Your task to perform on an android device: Do I have any events tomorrow? Image 0: 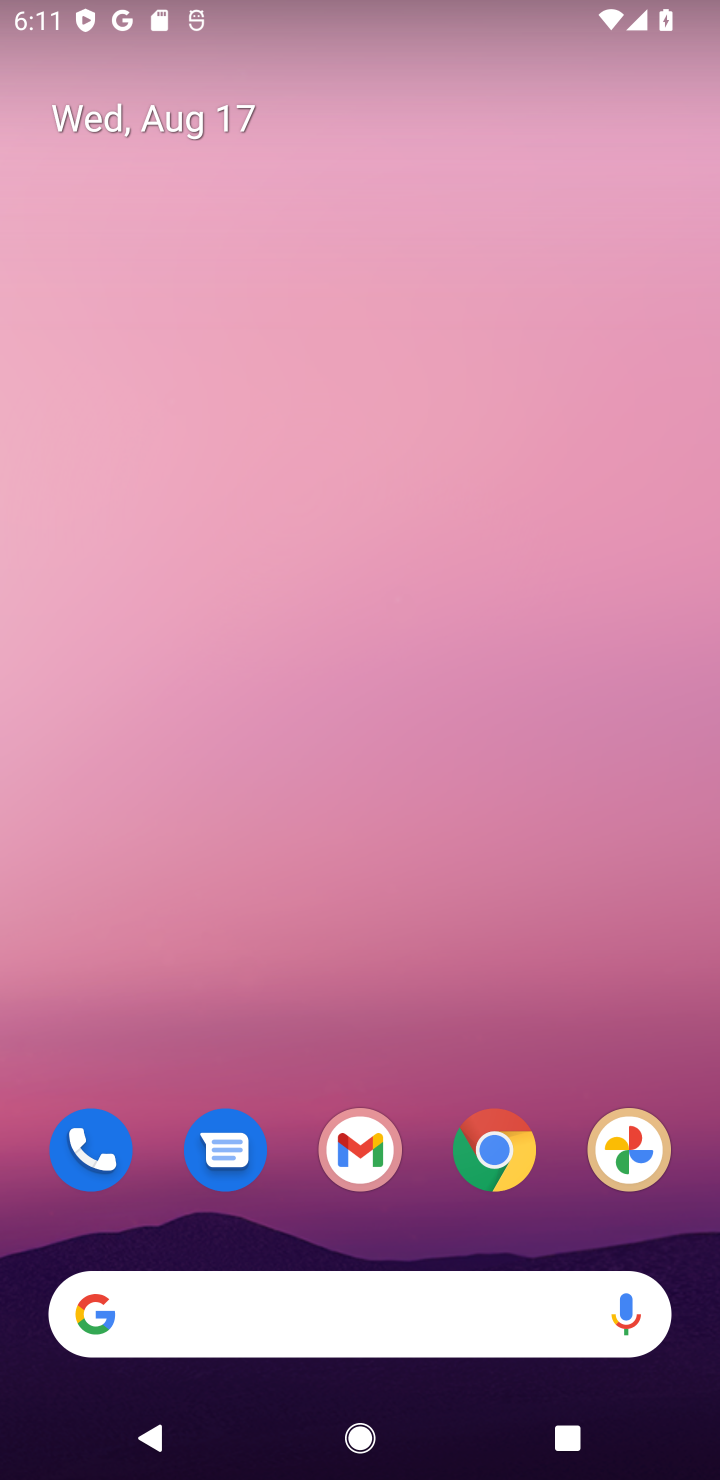
Step 0: drag from (313, 1169) to (397, 411)
Your task to perform on an android device: Do I have any events tomorrow? Image 1: 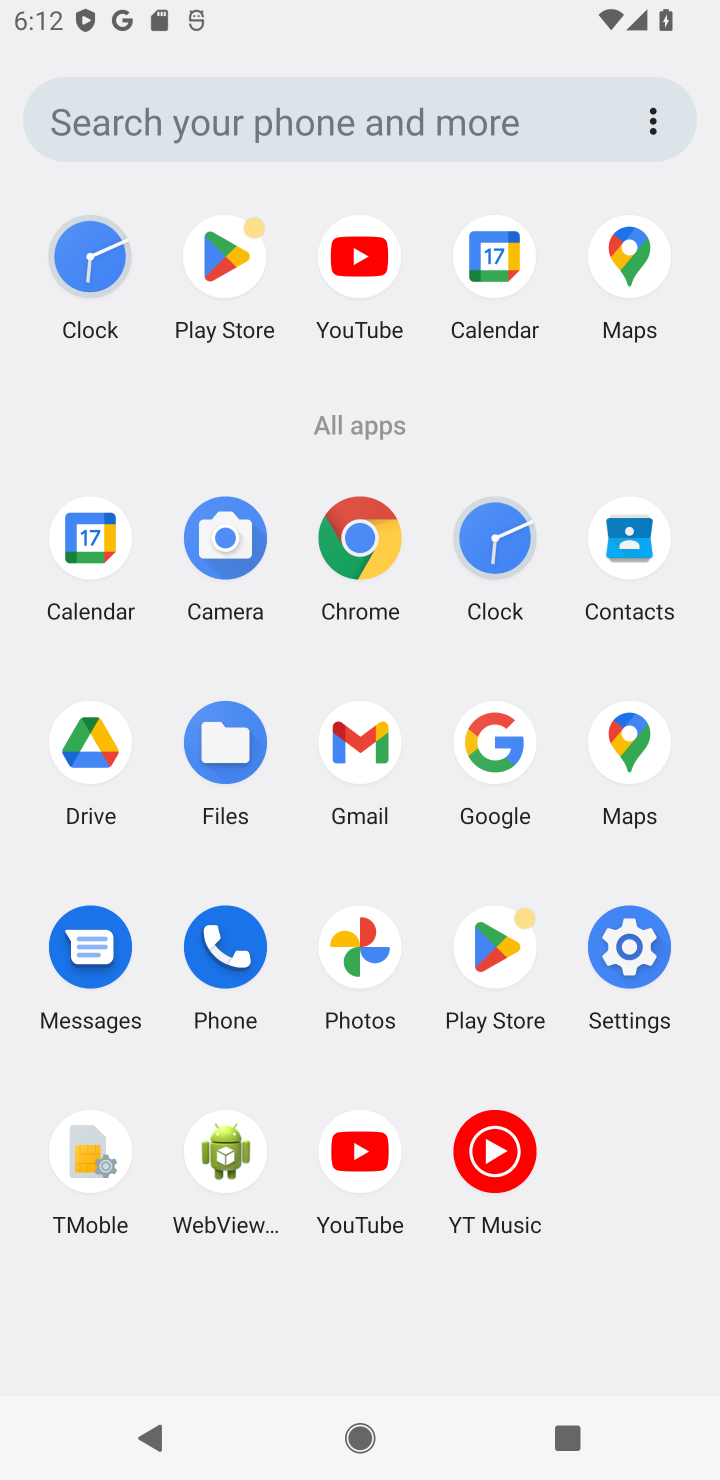
Step 1: click (85, 530)
Your task to perform on an android device: Do I have any events tomorrow? Image 2: 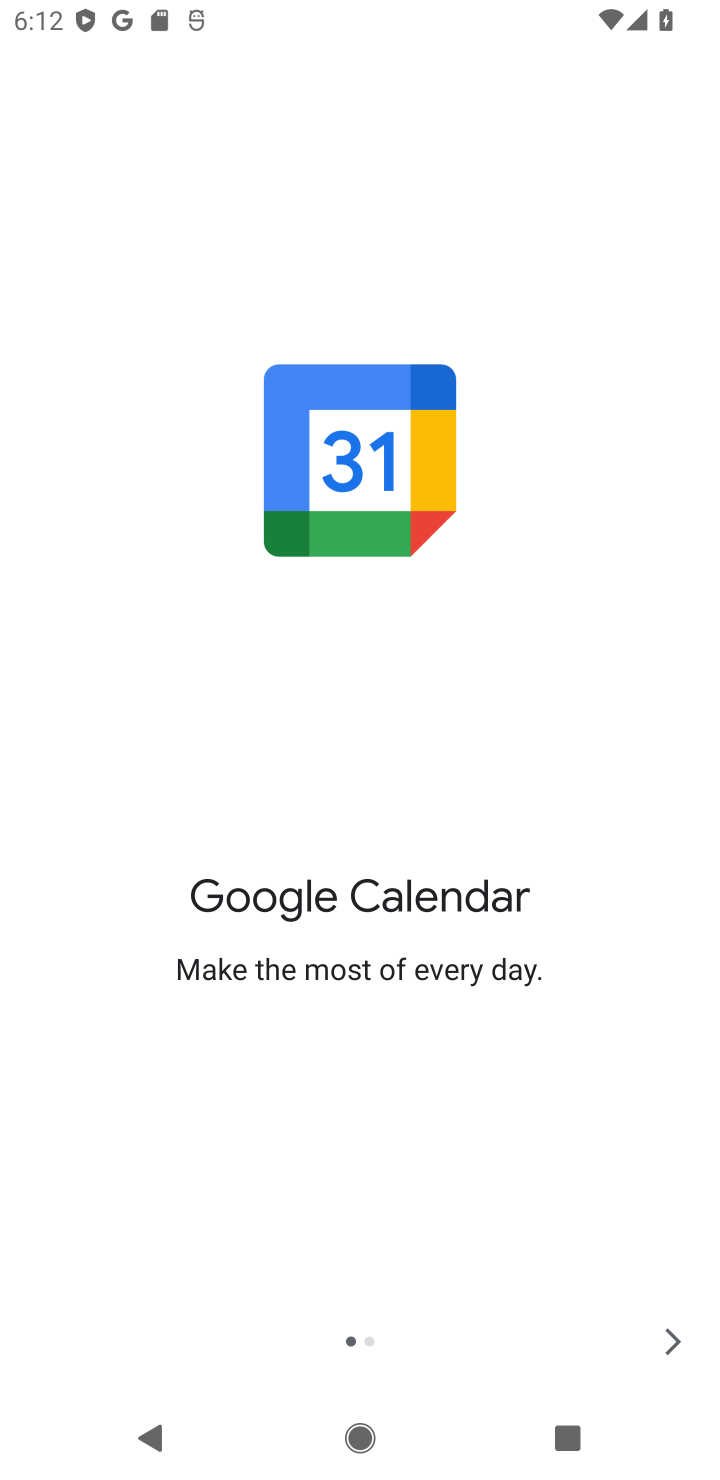
Step 2: click (647, 1333)
Your task to perform on an android device: Do I have any events tomorrow? Image 3: 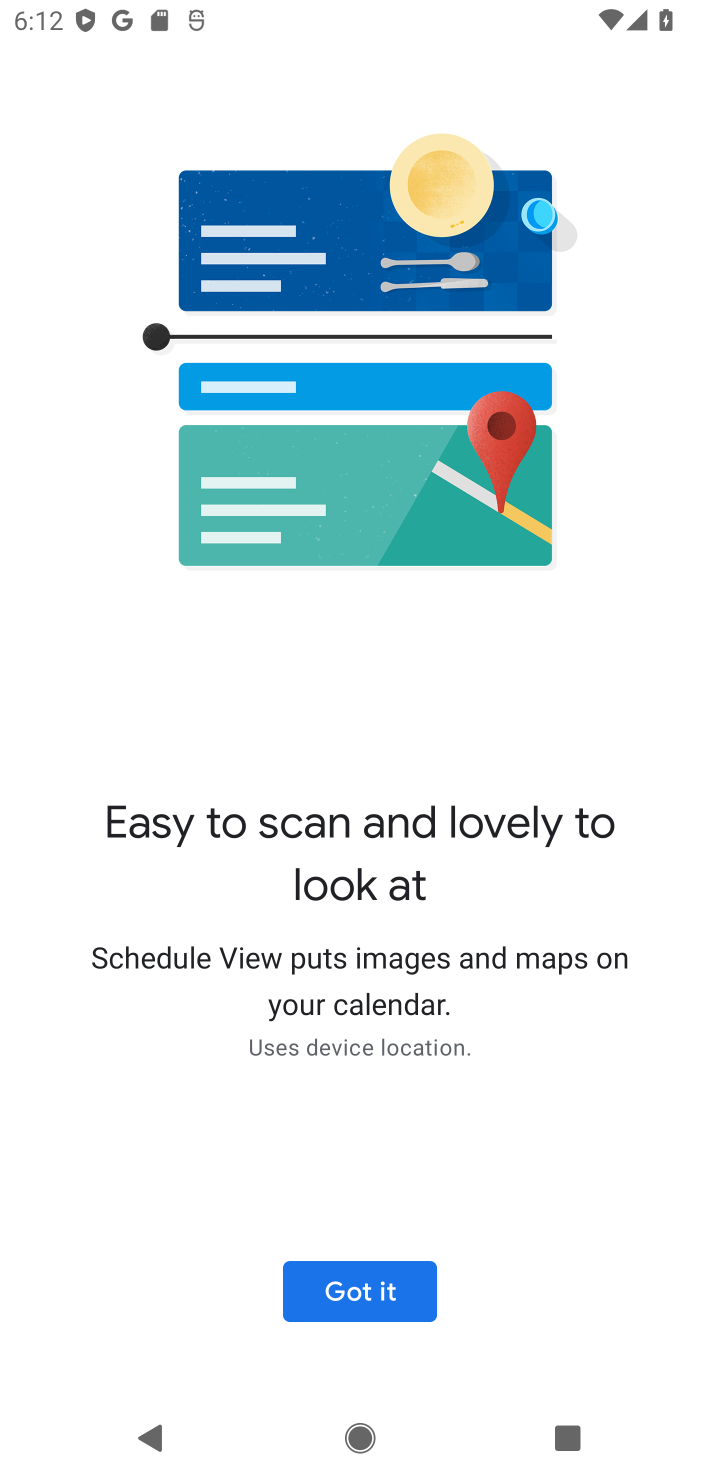
Step 3: click (649, 1335)
Your task to perform on an android device: Do I have any events tomorrow? Image 4: 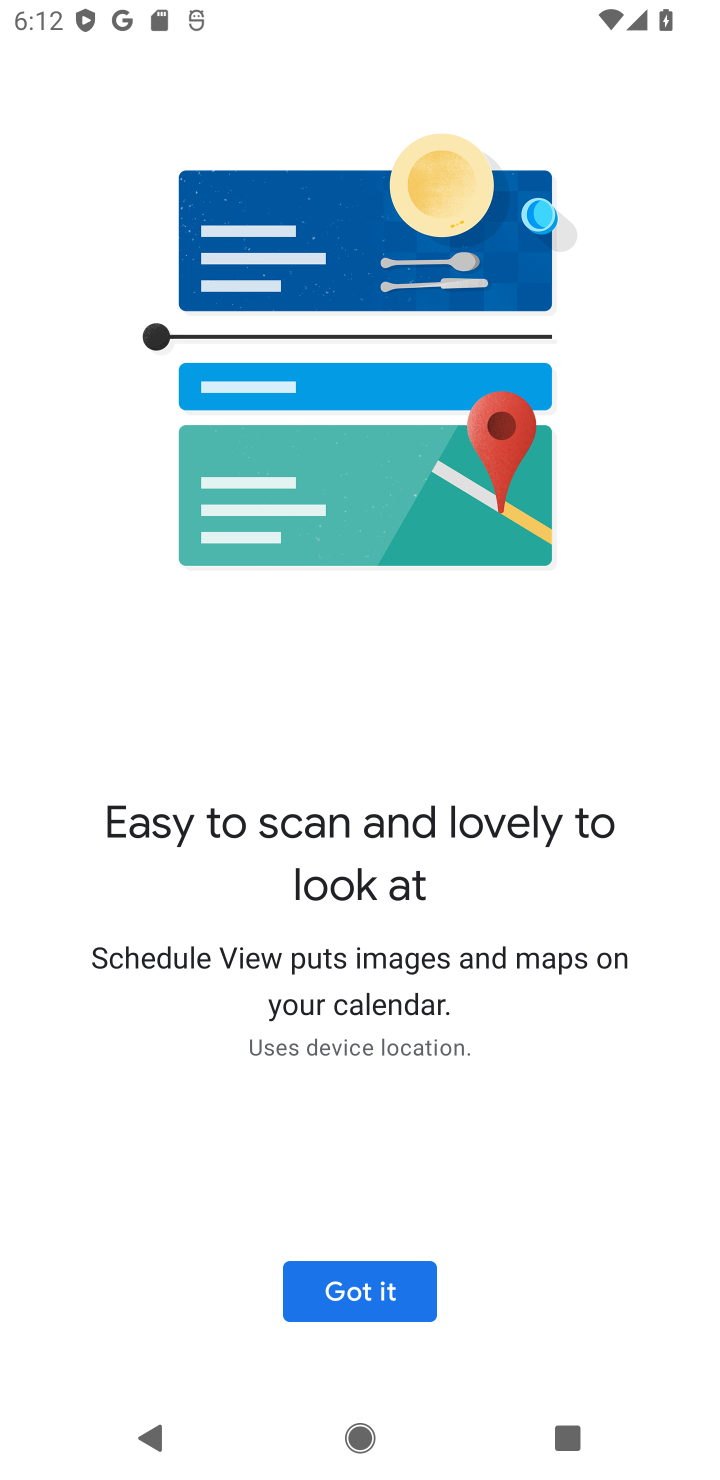
Step 4: click (411, 1292)
Your task to perform on an android device: Do I have any events tomorrow? Image 5: 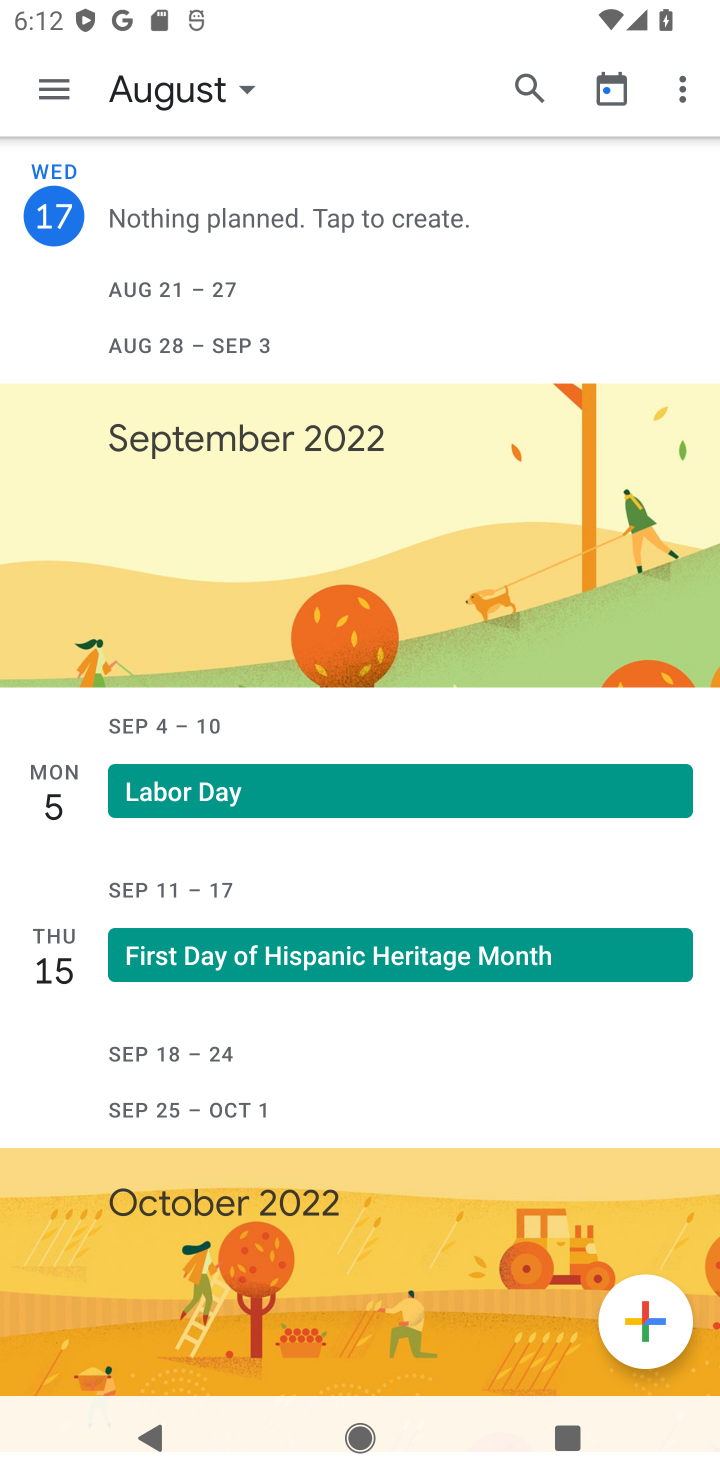
Step 5: click (135, 102)
Your task to perform on an android device: Do I have any events tomorrow? Image 6: 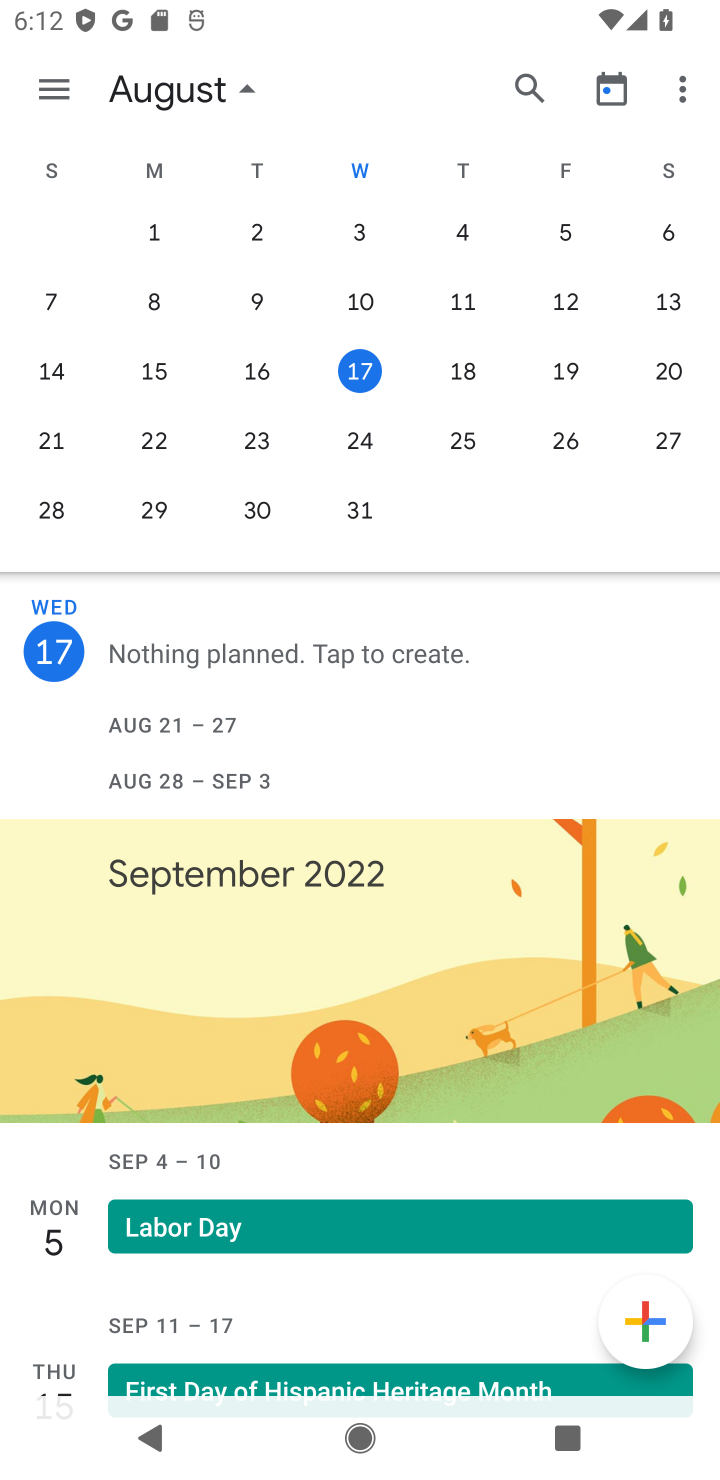
Step 6: click (462, 367)
Your task to perform on an android device: Do I have any events tomorrow? Image 7: 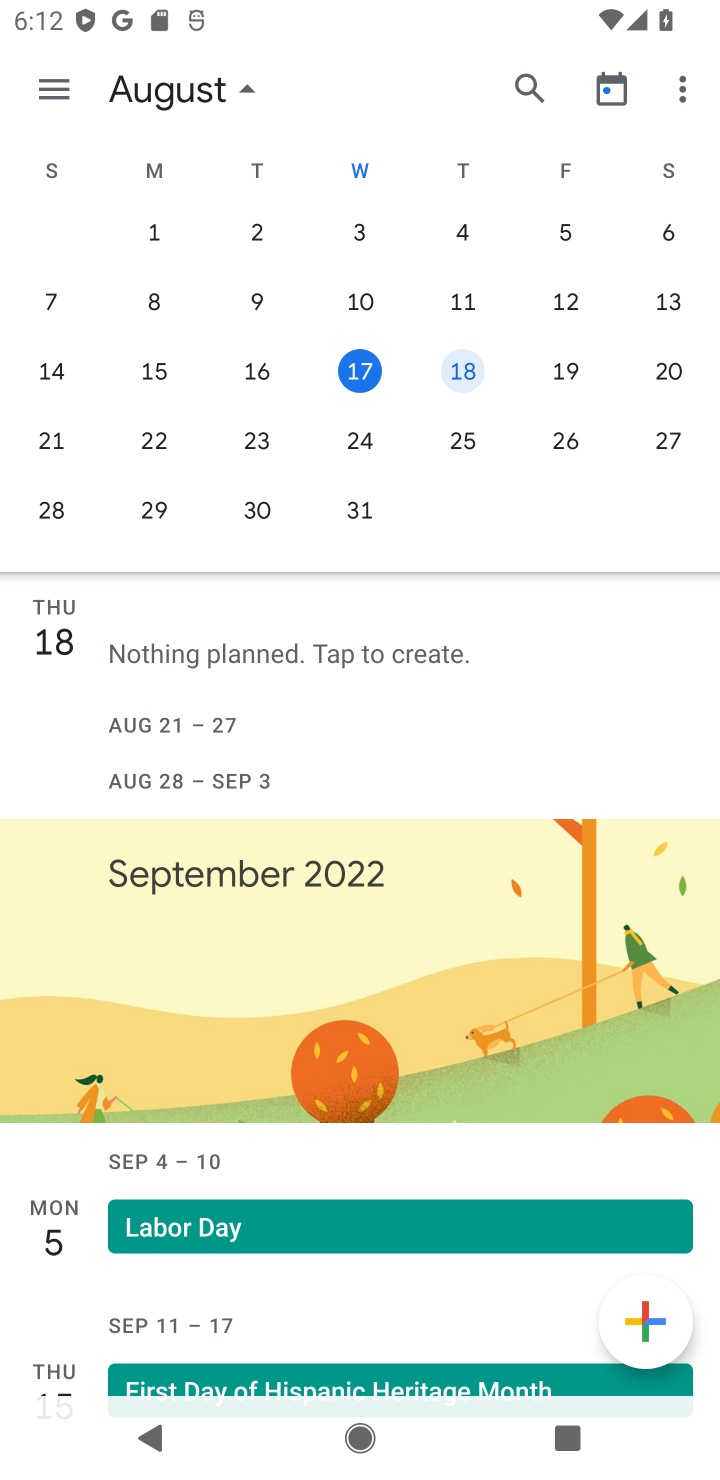
Step 7: task complete